Your task to perform on an android device: Is it going to rain today? Image 0: 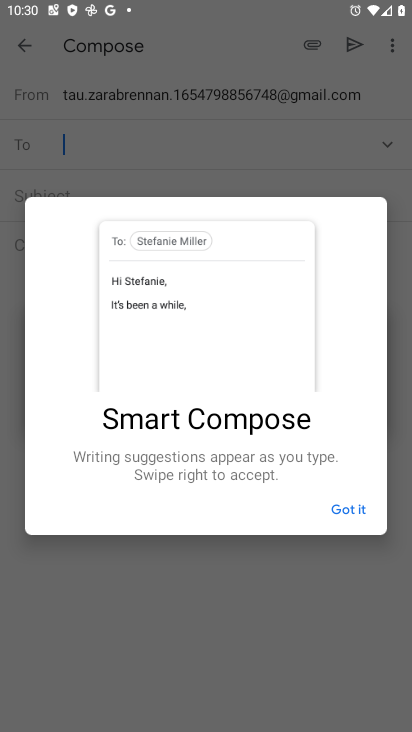
Step 0: press home button
Your task to perform on an android device: Is it going to rain today? Image 1: 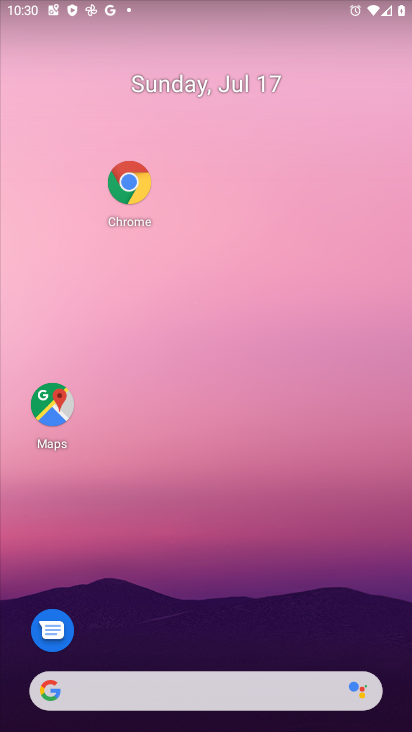
Step 1: click (95, 684)
Your task to perform on an android device: Is it going to rain today? Image 2: 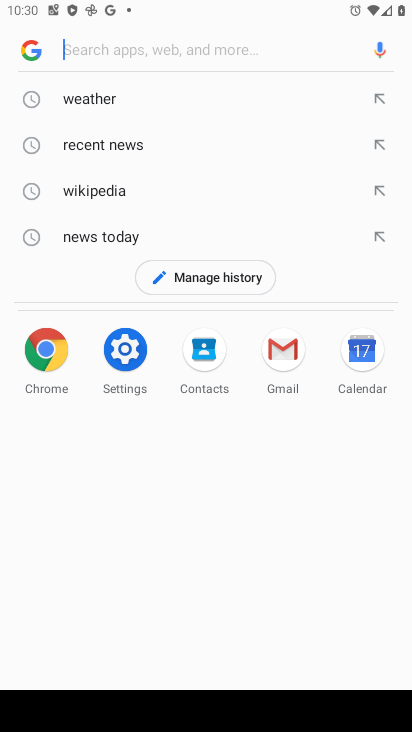
Step 2: click (87, 95)
Your task to perform on an android device: Is it going to rain today? Image 3: 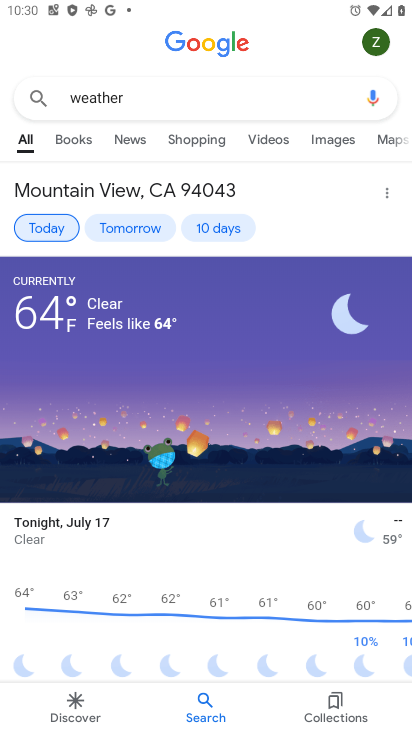
Step 3: task complete